Your task to perform on an android device: open wifi settings Image 0: 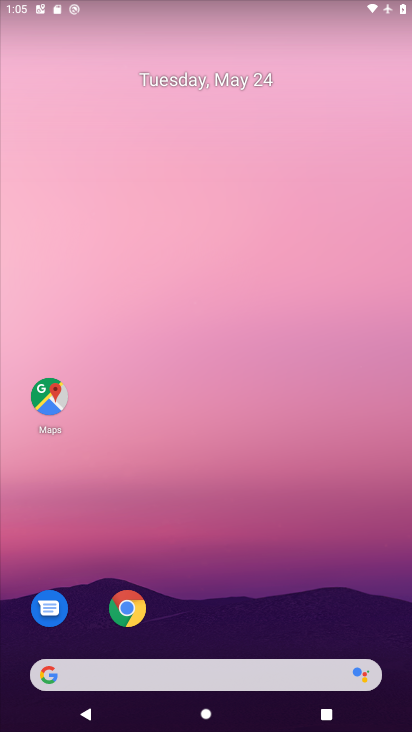
Step 0: drag from (265, 615) to (302, 84)
Your task to perform on an android device: open wifi settings Image 1: 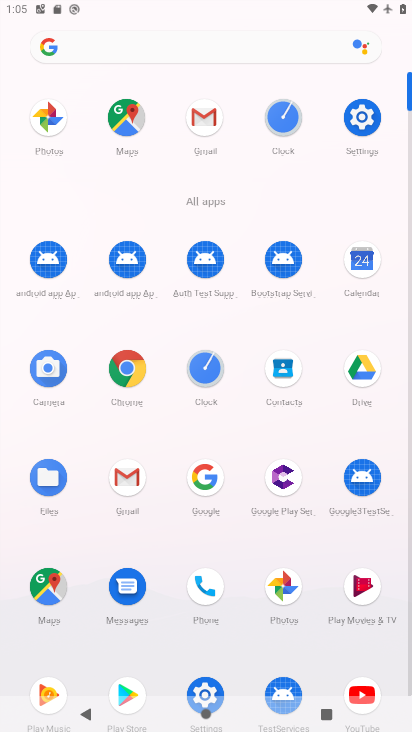
Step 1: click (345, 109)
Your task to perform on an android device: open wifi settings Image 2: 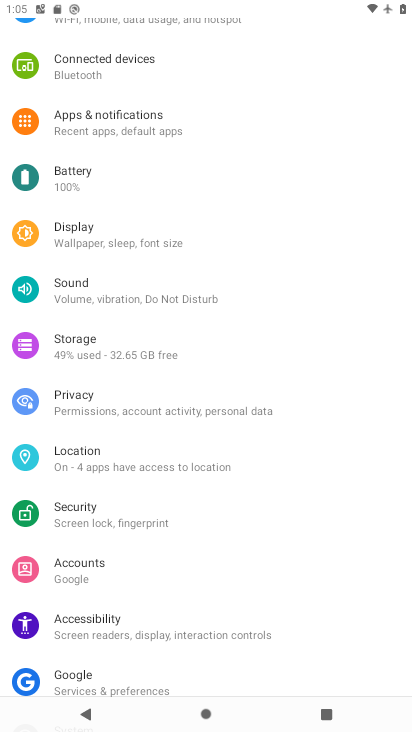
Step 2: drag from (168, 79) to (179, 526)
Your task to perform on an android device: open wifi settings Image 3: 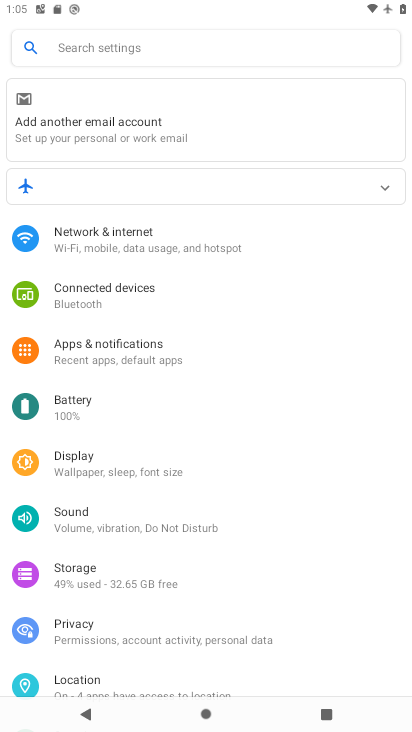
Step 3: click (223, 233)
Your task to perform on an android device: open wifi settings Image 4: 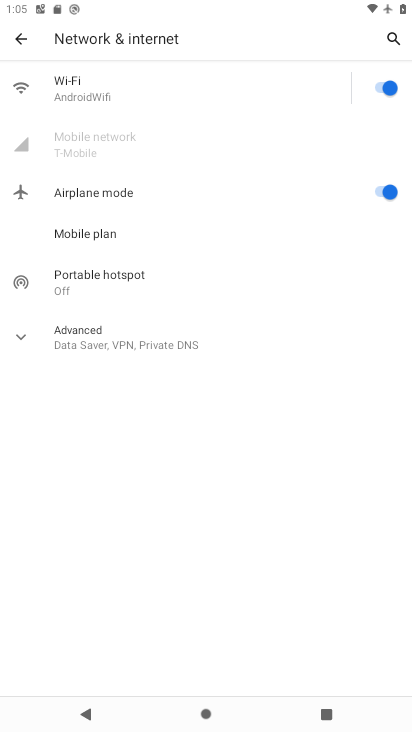
Step 4: click (197, 82)
Your task to perform on an android device: open wifi settings Image 5: 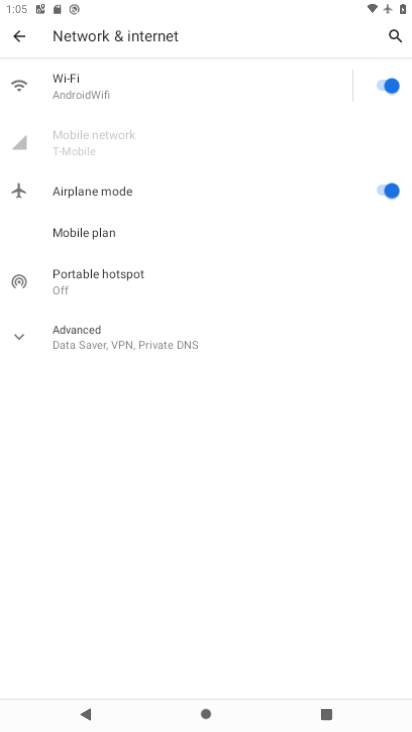
Step 5: task complete